Your task to perform on an android device: When is my next appointment? Image 0: 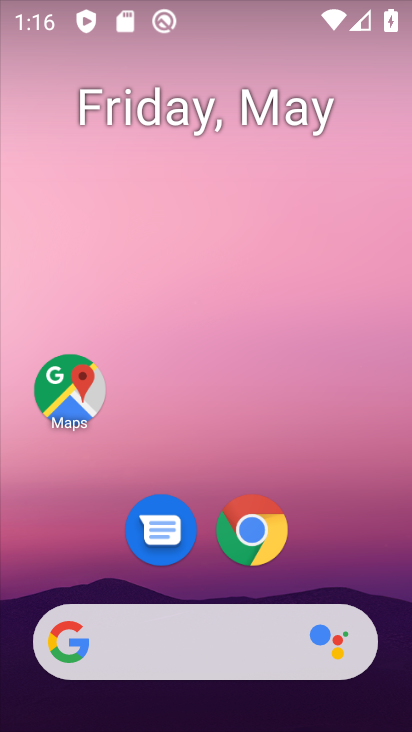
Step 0: drag from (293, 561) to (295, 96)
Your task to perform on an android device: When is my next appointment? Image 1: 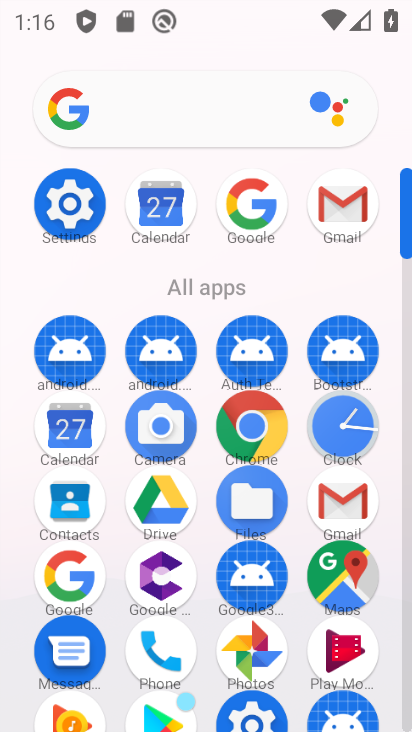
Step 1: click (157, 200)
Your task to perform on an android device: When is my next appointment? Image 2: 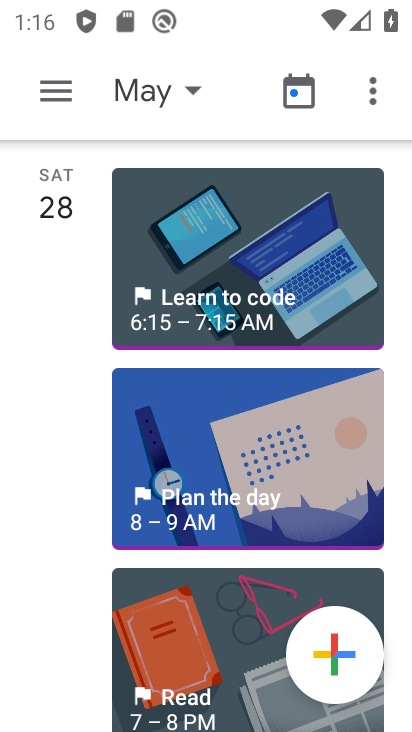
Step 2: click (140, 94)
Your task to perform on an android device: When is my next appointment? Image 3: 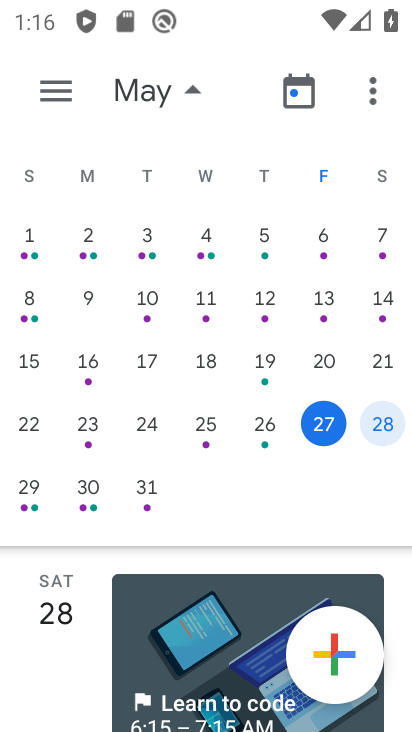
Step 3: click (336, 417)
Your task to perform on an android device: When is my next appointment? Image 4: 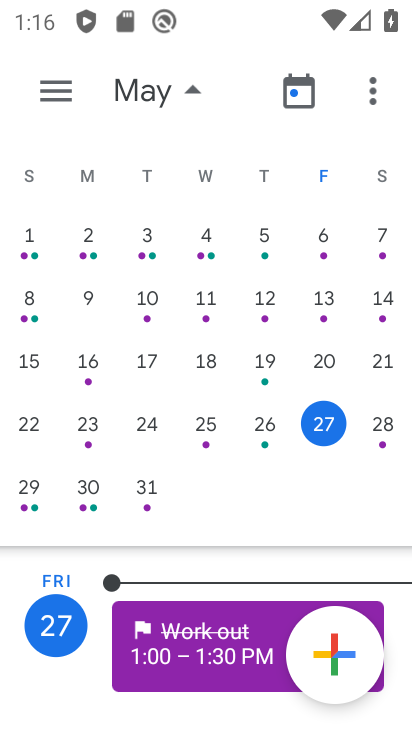
Step 4: task complete